Your task to perform on an android device: check google app version Image 0: 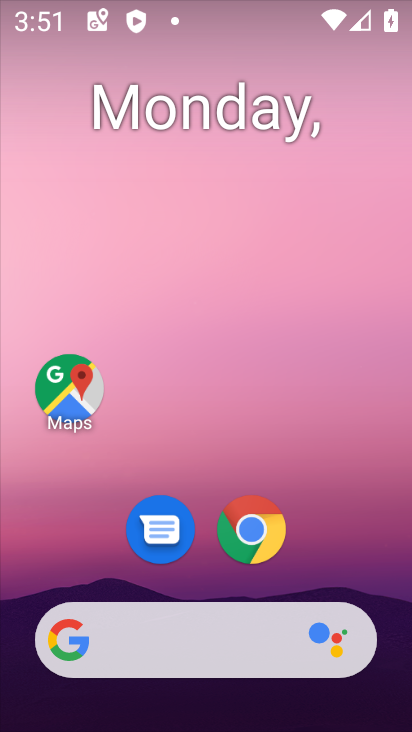
Step 0: click (190, 644)
Your task to perform on an android device: check google app version Image 1: 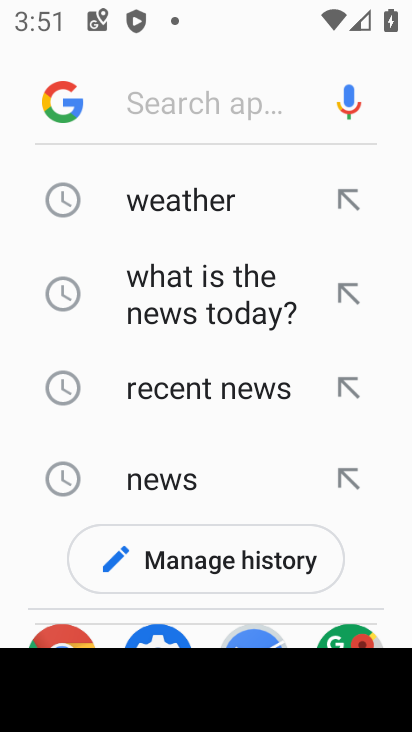
Step 1: click (49, 100)
Your task to perform on an android device: check google app version Image 2: 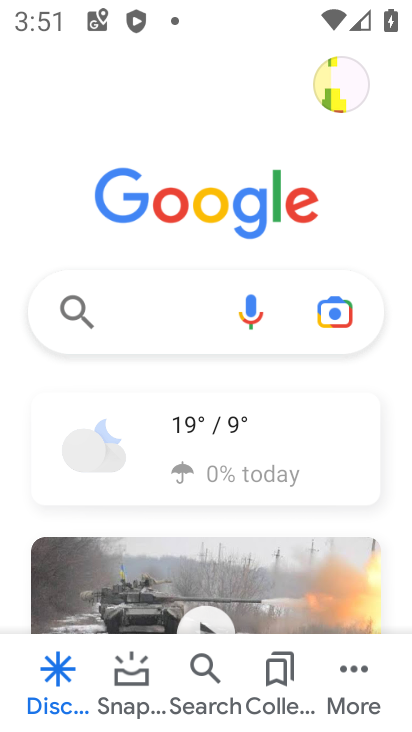
Step 2: click (358, 671)
Your task to perform on an android device: check google app version Image 3: 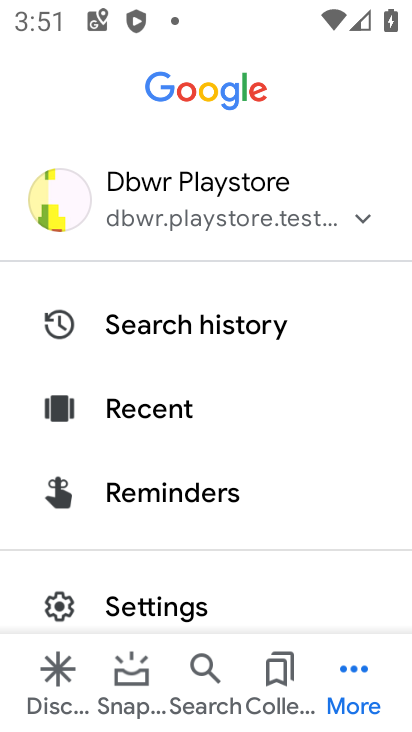
Step 3: drag from (209, 546) to (265, 407)
Your task to perform on an android device: check google app version Image 4: 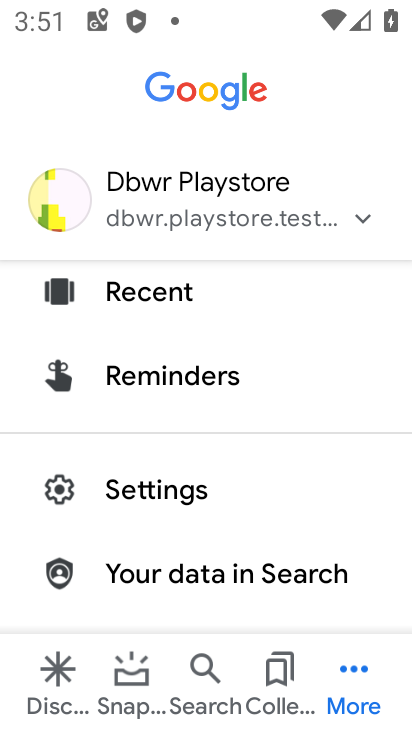
Step 4: click (161, 501)
Your task to perform on an android device: check google app version Image 5: 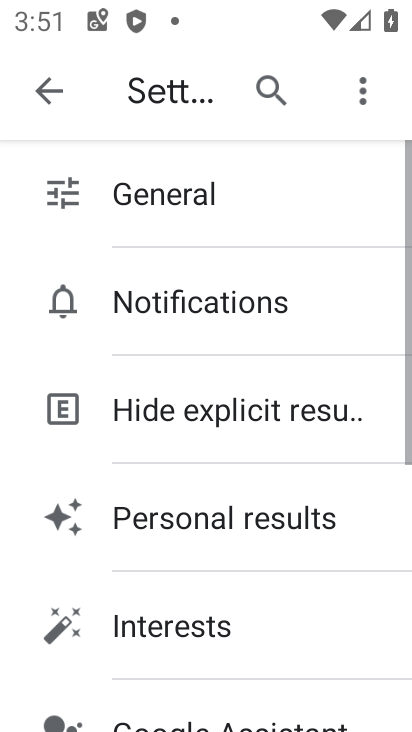
Step 5: drag from (199, 588) to (288, 284)
Your task to perform on an android device: check google app version Image 6: 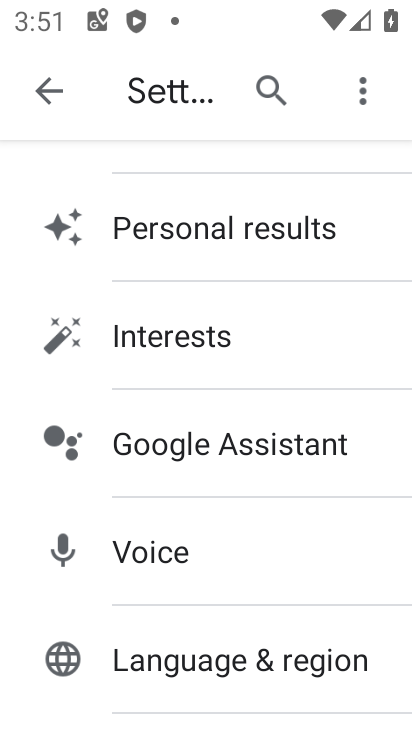
Step 6: drag from (212, 607) to (283, 294)
Your task to perform on an android device: check google app version Image 7: 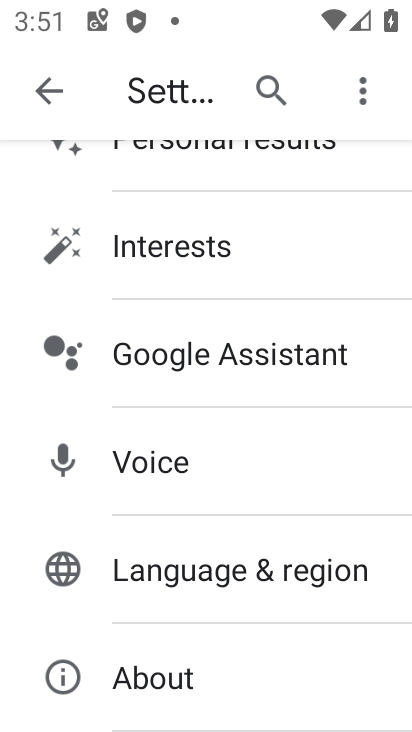
Step 7: click (184, 672)
Your task to perform on an android device: check google app version Image 8: 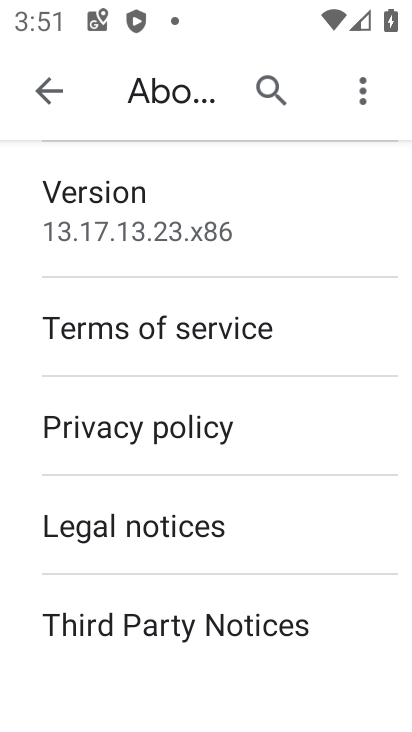
Step 8: task complete